Your task to perform on an android device: open app "Pluto TV - Live TV and Movies" (install if not already installed) and go to login screen Image 0: 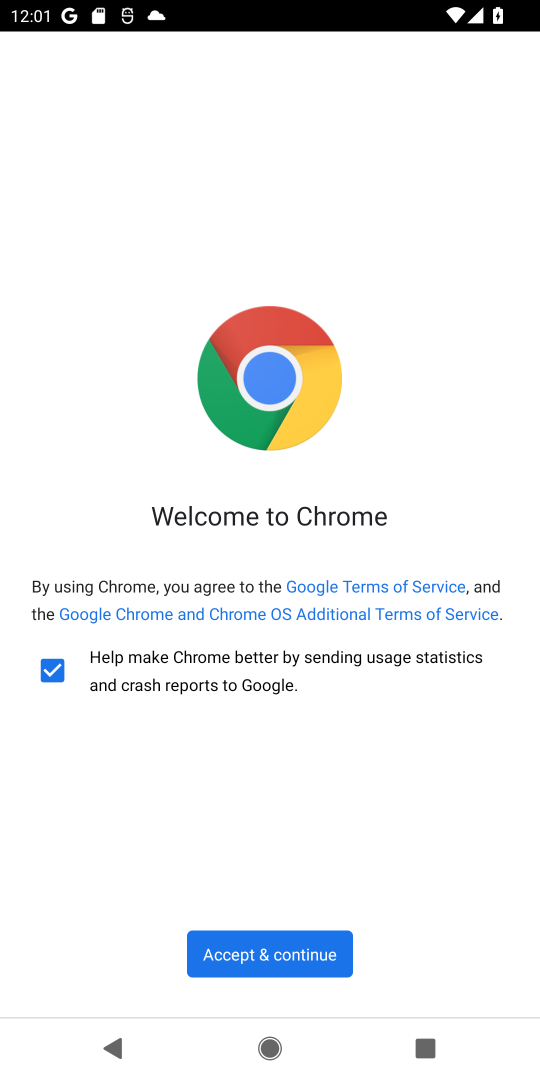
Step 0: press home button
Your task to perform on an android device: open app "Pluto TV - Live TV and Movies" (install if not already installed) and go to login screen Image 1: 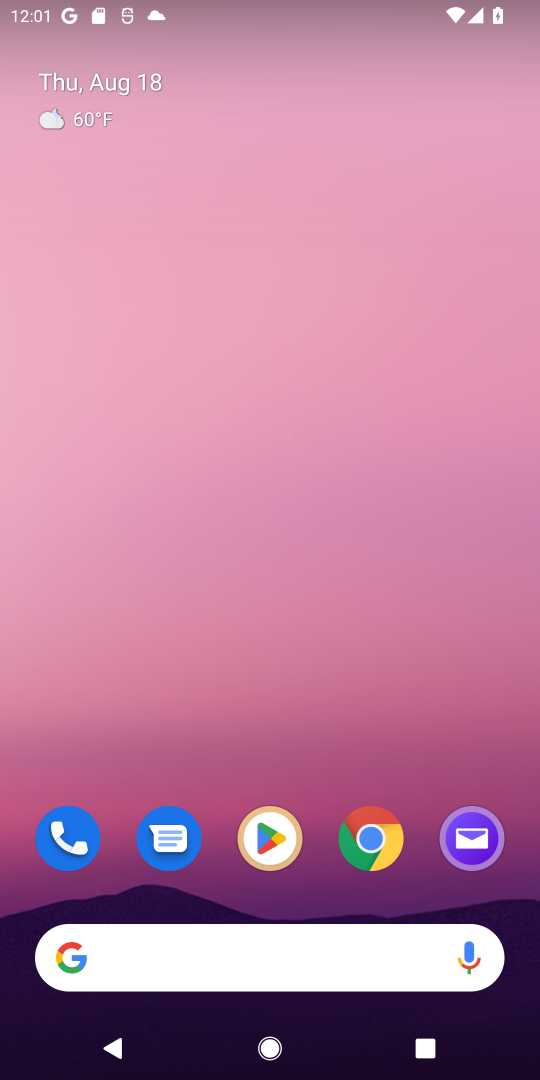
Step 1: click (274, 838)
Your task to perform on an android device: open app "Pluto TV - Live TV and Movies" (install if not already installed) and go to login screen Image 2: 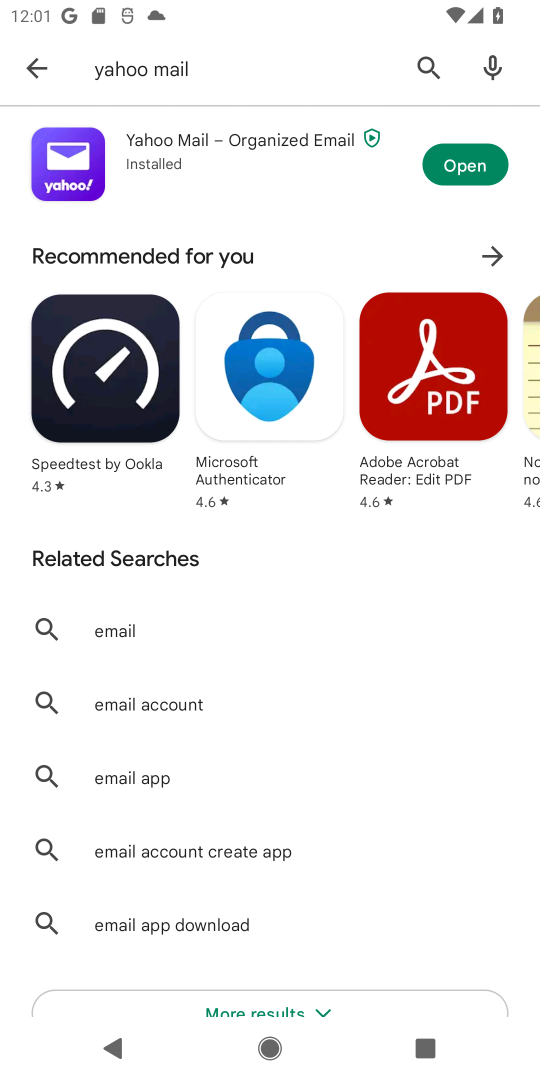
Step 2: click (431, 63)
Your task to perform on an android device: open app "Pluto TV - Live TV and Movies" (install if not already installed) and go to login screen Image 3: 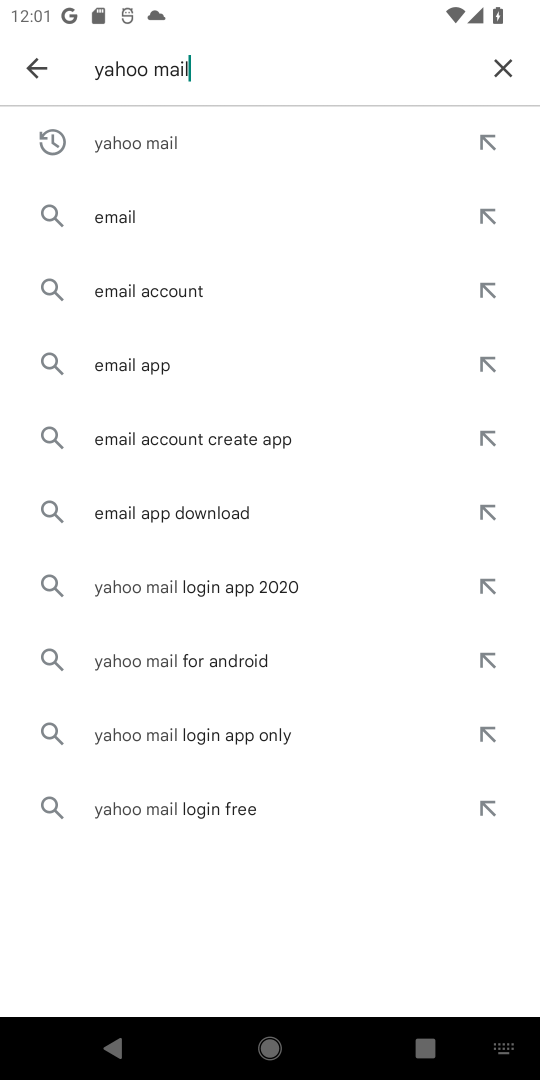
Step 3: click (488, 57)
Your task to perform on an android device: open app "Pluto TV - Live TV and Movies" (install if not already installed) and go to login screen Image 4: 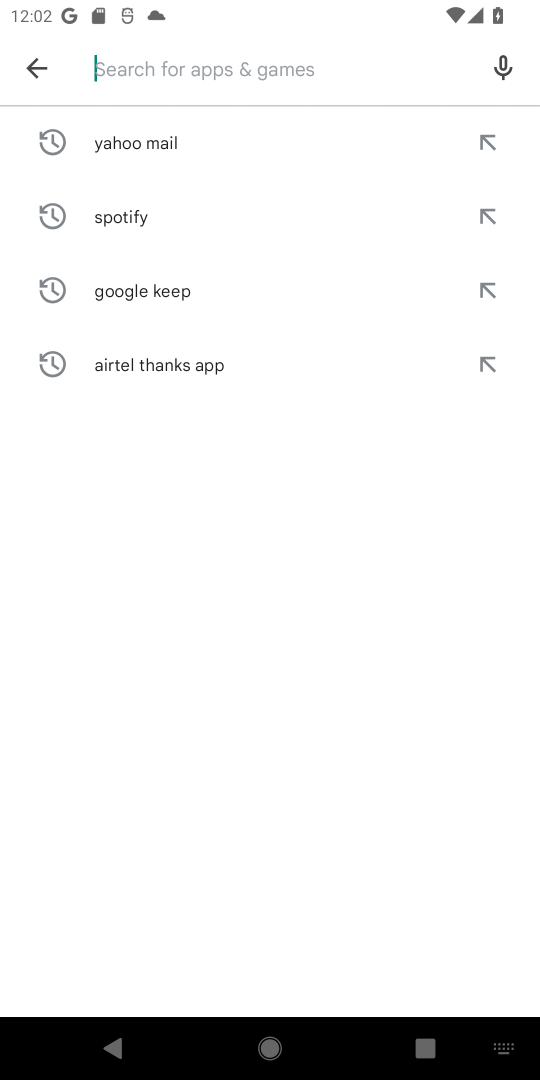
Step 4: type "Pluto TV - Live TV and Movies"
Your task to perform on an android device: open app "Pluto TV - Live TV and Movies" (install if not already installed) and go to login screen Image 5: 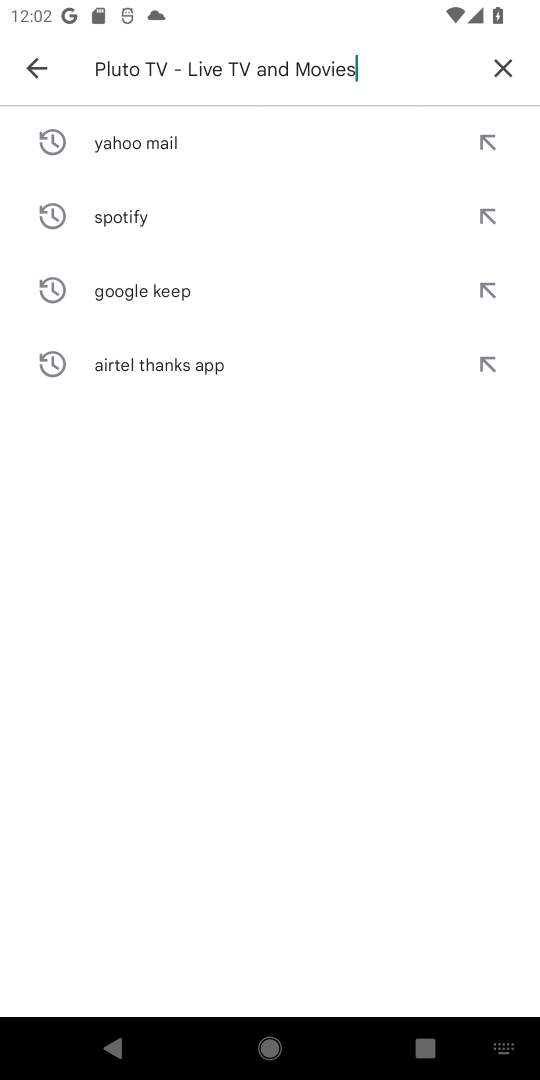
Step 5: type ""
Your task to perform on an android device: open app "Pluto TV - Live TV and Movies" (install if not already installed) and go to login screen Image 6: 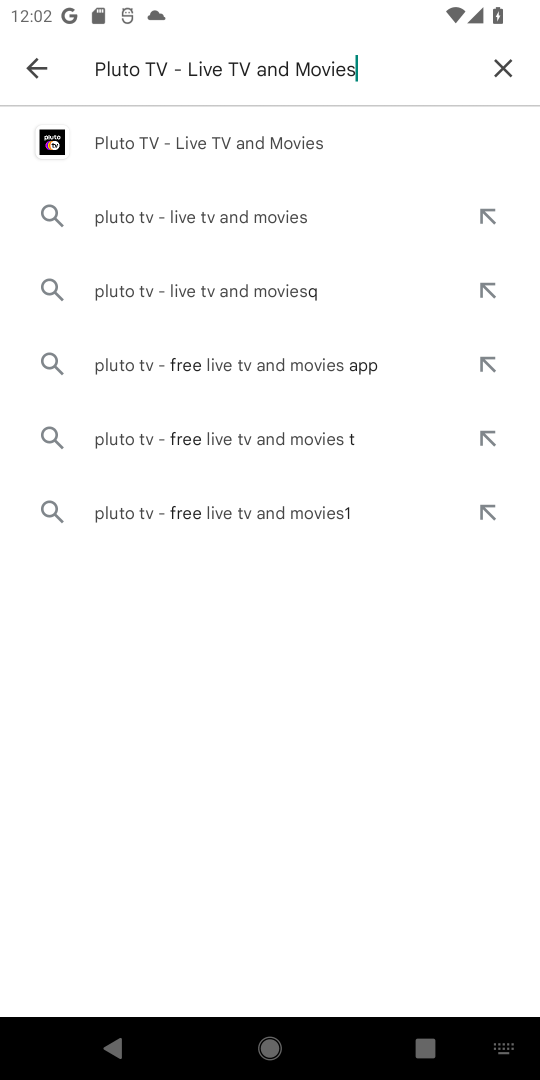
Step 6: click (135, 142)
Your task to perform on an android device: open app "Pluto TV - Live TV and Movies" (install if not already installed) and go to login screen Image 7: 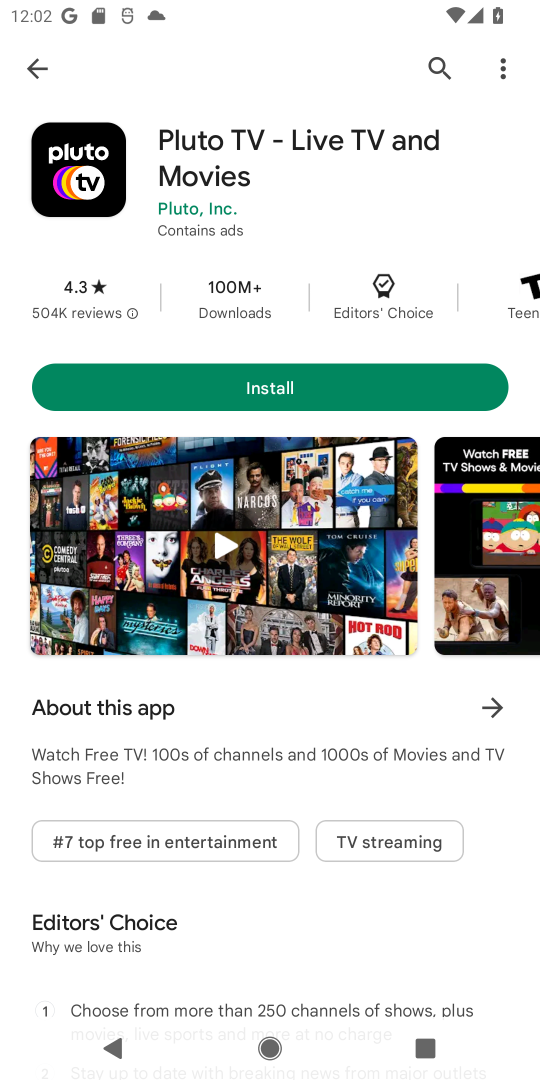
Step 7: click (235, 386)
Your task to perform on an android device: open app "Pluto TV - Live TV and Movies" (install if not already installed) and go to login screen Image 8: 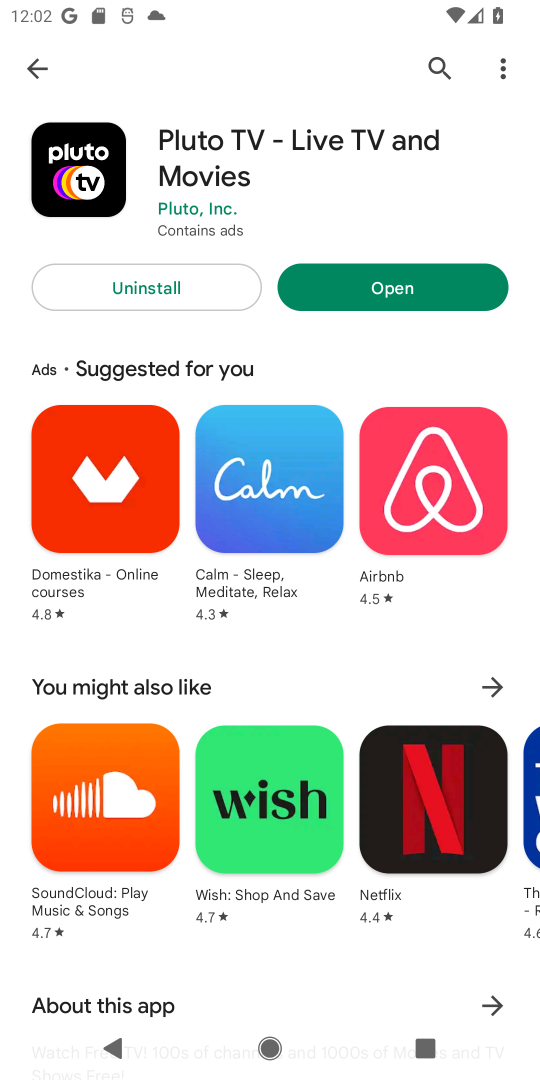
Step 8: click (385, 289)
Your task to perform on an android device: open app "Pluto TV - Live TV and Movies" (install if not already installed) and go to login screen Image 9: 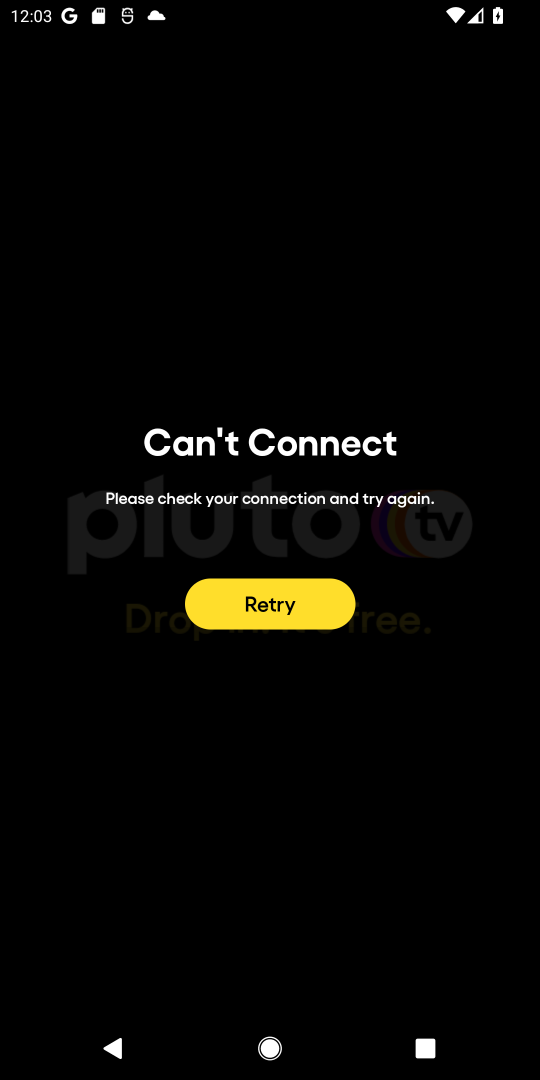
Step 9: task complete